Your task to perform on an android device: What is the recent news? Image 0: 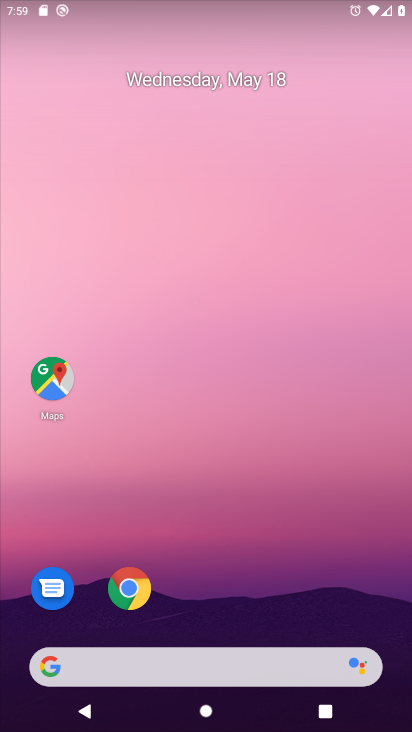
Step 0: click (215, 664)
Your task to perform on an android device: What is the recent news? Image 1: 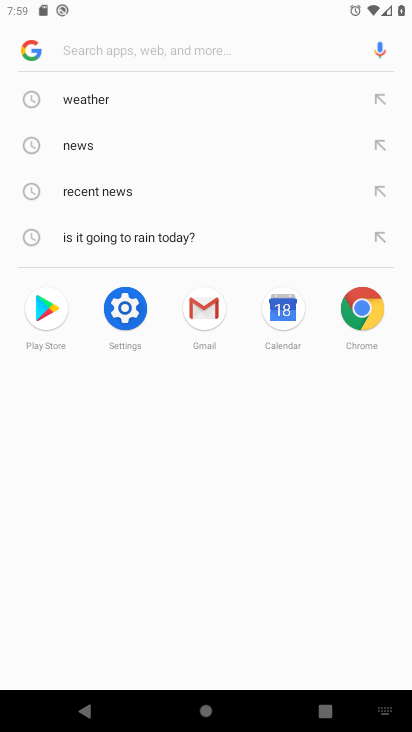
Step 1: click (130, 196)
Your task to perform on an android device: What is the recent news? Image 2: 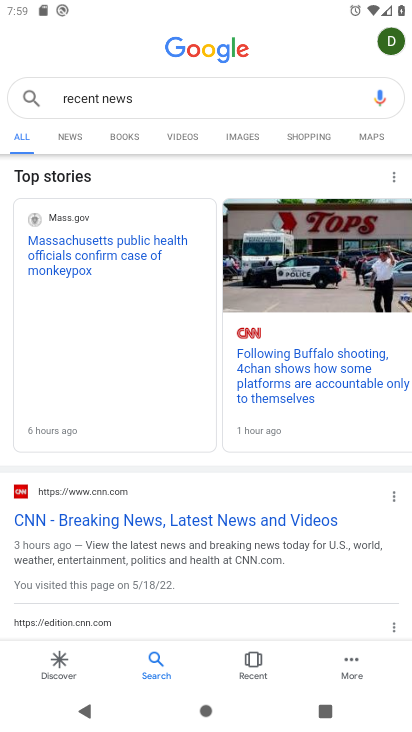
Step 2: task complete